Your task to perform on an android device: Open Reddit.com Image 0: 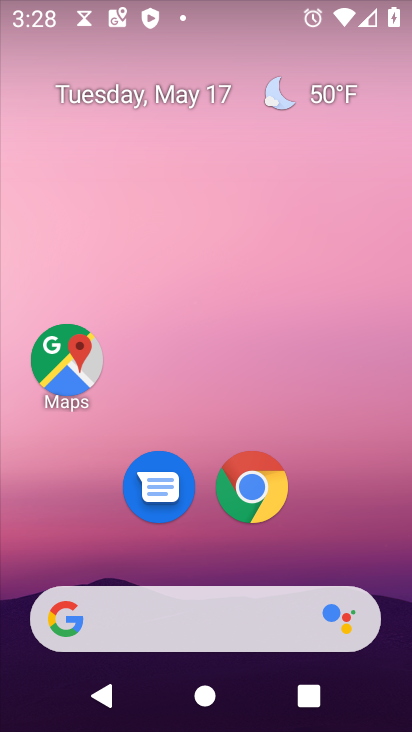
Step 0: click (251, 479)
Your task to perform on an android device: Open Reddit.com Image 1: 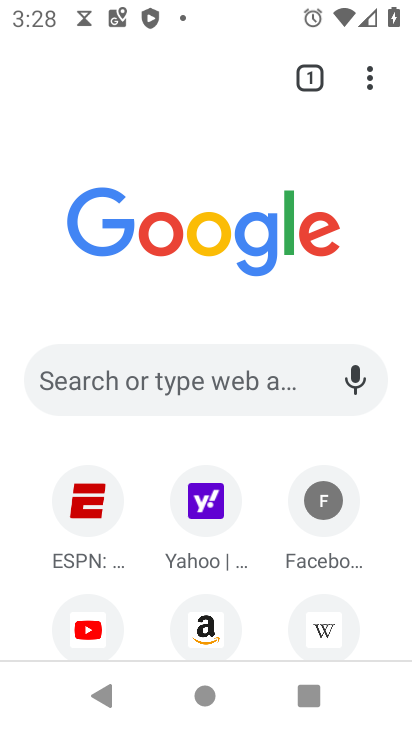
Step 1: click (112, 382)
Your task to perform on an android device: Open Reddit.com Image 2: 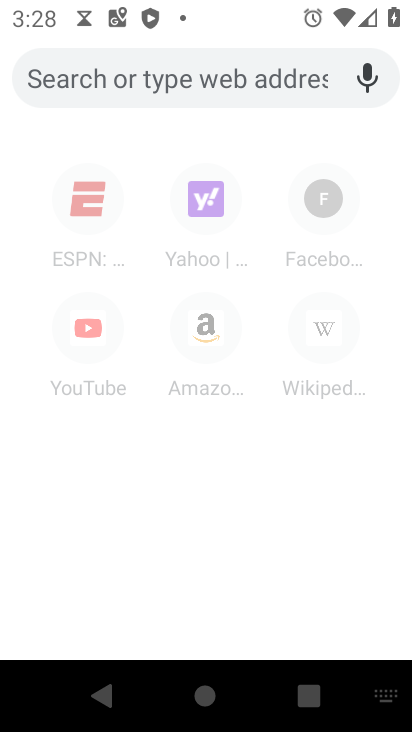
Step 2: type "reddit.com"
Your task to perform on an android device: Open Reddit.com Image 3: 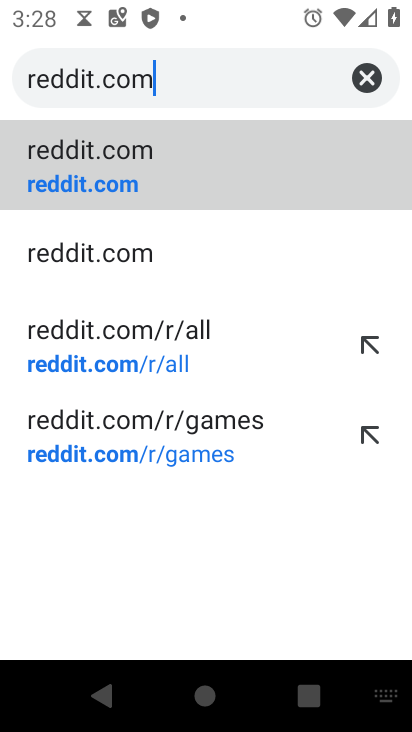
Step 3: click (83, 145)
Your task to perform on an android device: Open Reddit.com Image 4: 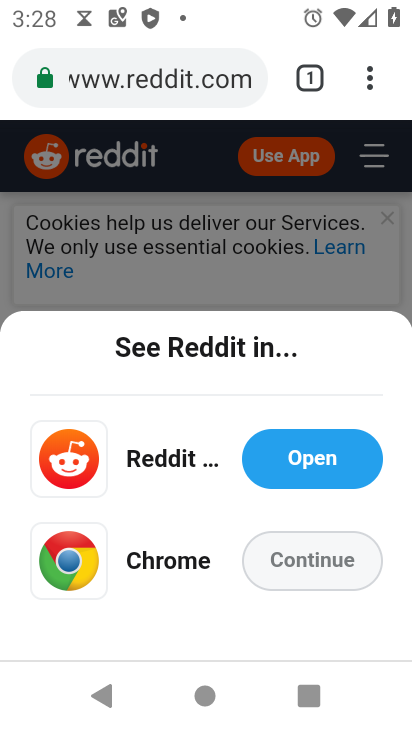
Step 4: task complete